Your task to perform on an android device: check the backup settings in the google photos Image 0: 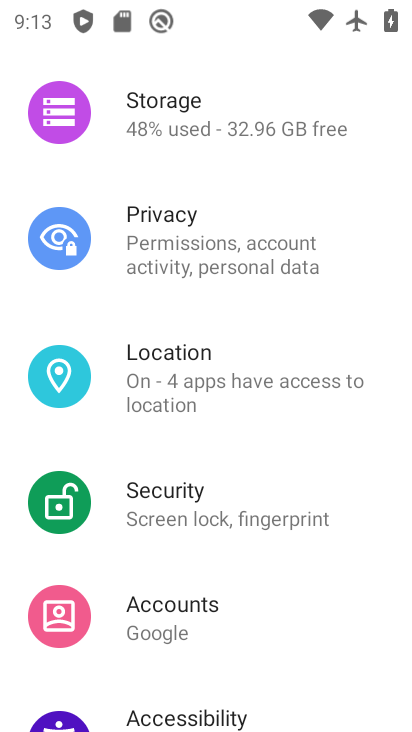
Step 0: press home button
Your task to perform on an android device: check the backup settings in the google photos Image 1: 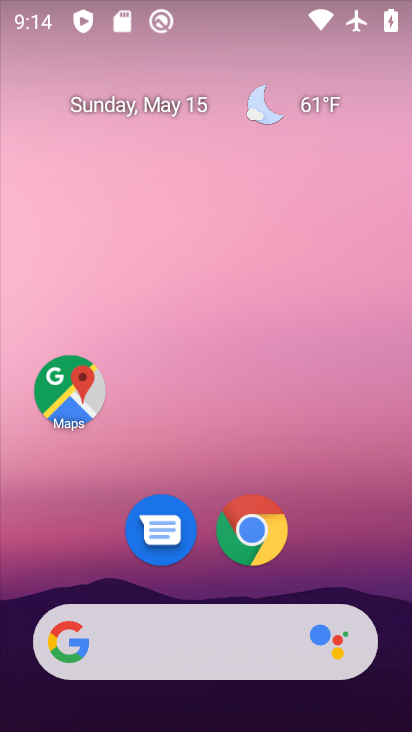
Step 1: drag from (229, 720) to (208, 141)
Your task to perform on an android device: check the backup settings in the google photos Image 2: 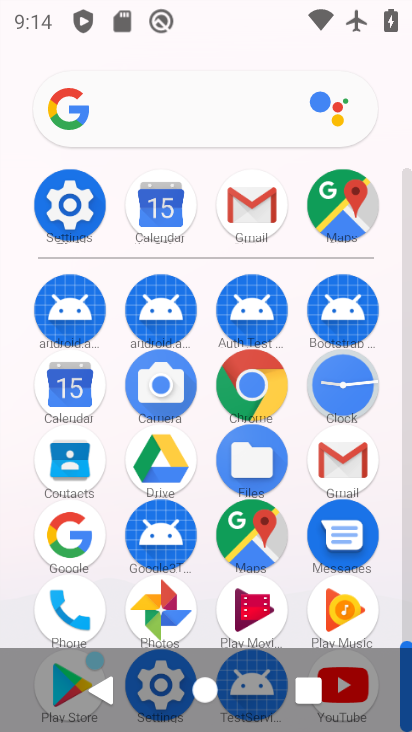
Step 2: click (161, 606)
Your task to perform on an android device: check the backup settings in the google photos Image 3: 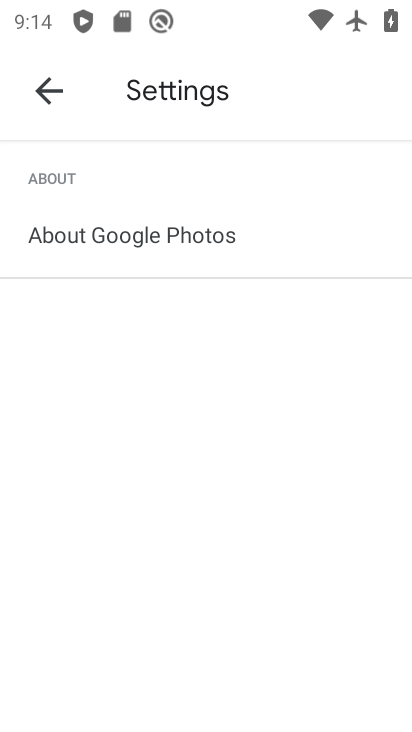
Step 3: click (51, 86)
Your task to perform on an android device: check the backup settings in the google photos Image 4: 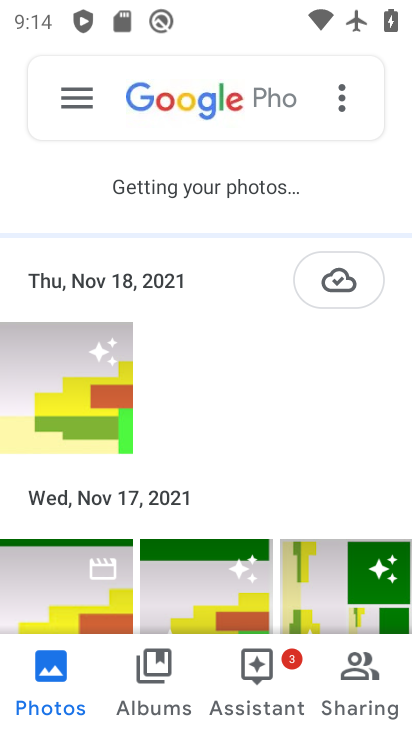
Step 4: click (67, 93)
Your task to perform on an android device: check the backup settings in the google photos Image 5: 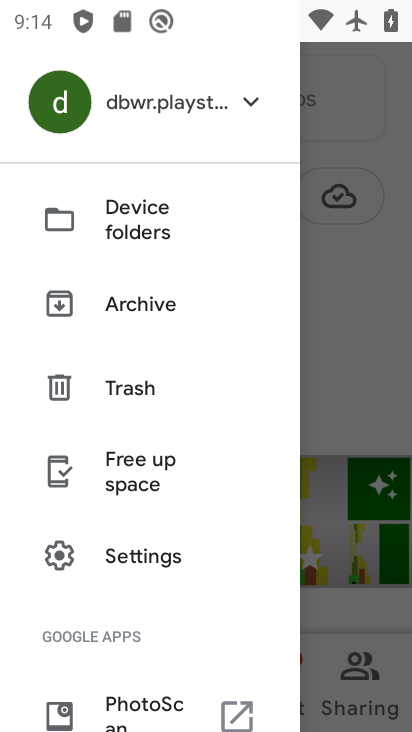
Step 5: click (138, 558)
Your task to perform on an android device: check the backup settings in the google photos Image 6: 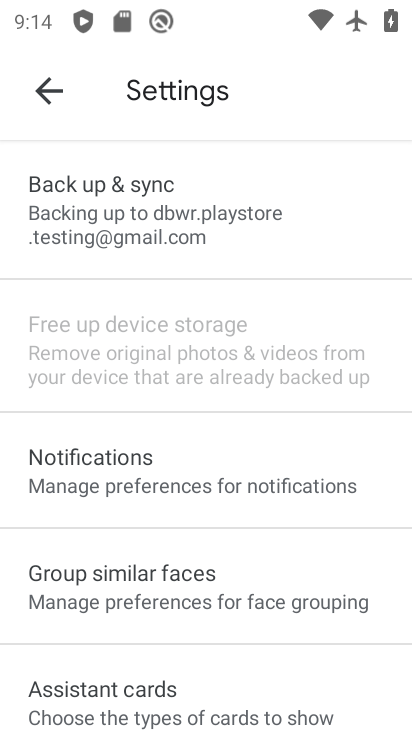
Step 6: click (117, 216)
Your task to perform on an android device: check the backup settings in the google photos Image 7: 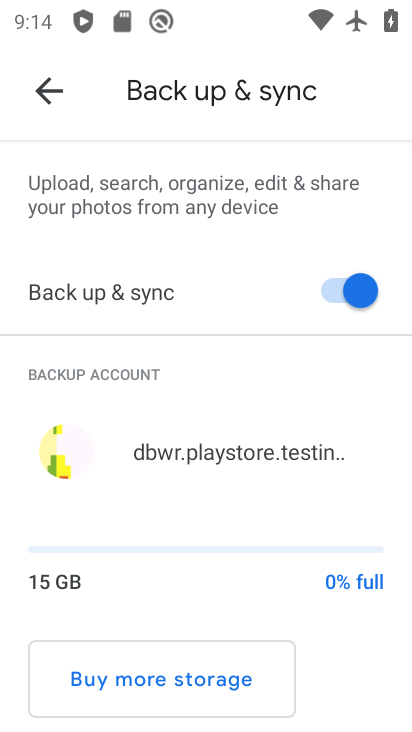
Step 7: task complete